Your task to perform on an android device: delete location history Image 0: 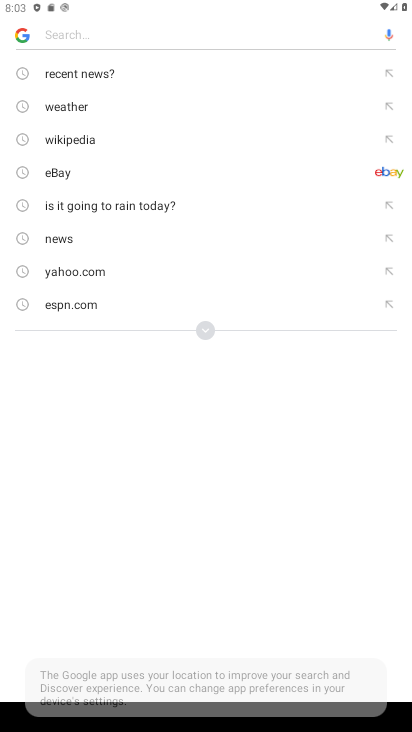
Step 0: press home button
Your task to perform on an android device: delete location history Image 1: 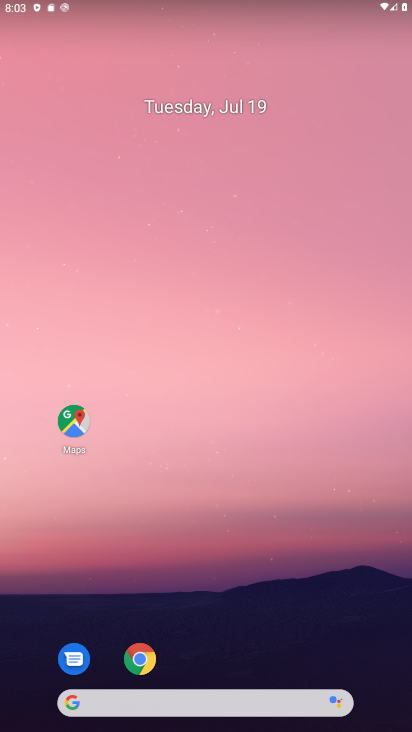
Step 1: click (72, 432)
Your task to perform on an android device: delete location history Image 2: 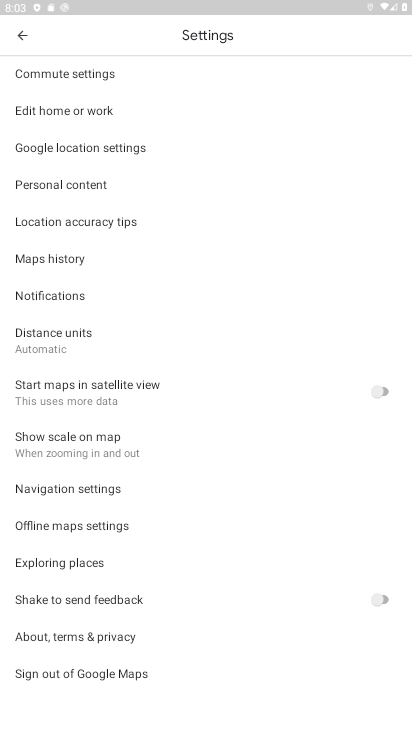
Step 2: click (19, 36)
Your task to perform on an android device: delete location history Image 3: 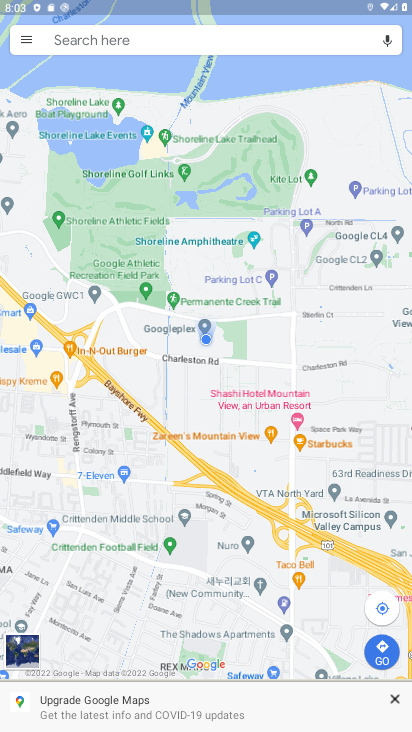
Step 3: click (19, 36)
Your task to perform on an android device: delete location history Image 4: 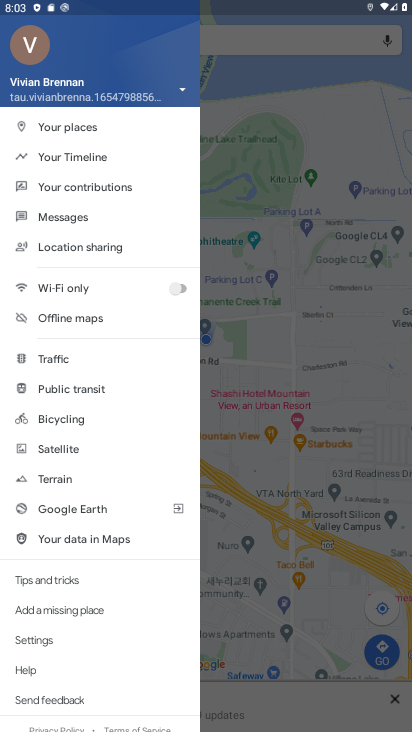
Step 4: click (109, 151)
Your task to perform on an android device: delete location history Image 5: 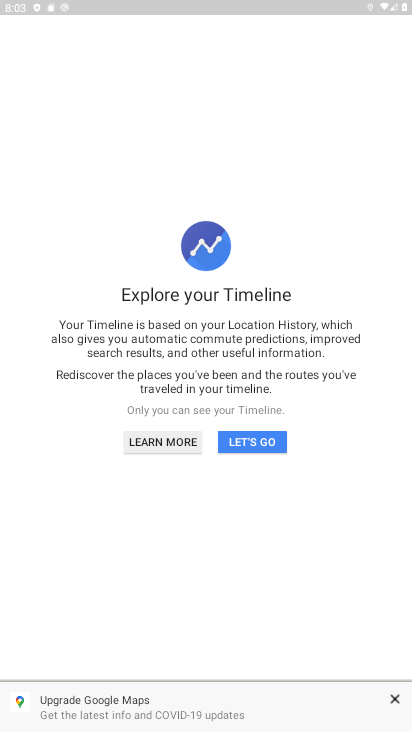
Step 5: click (275, 446)
Your task to perform on an android device: delete location history Image 6: 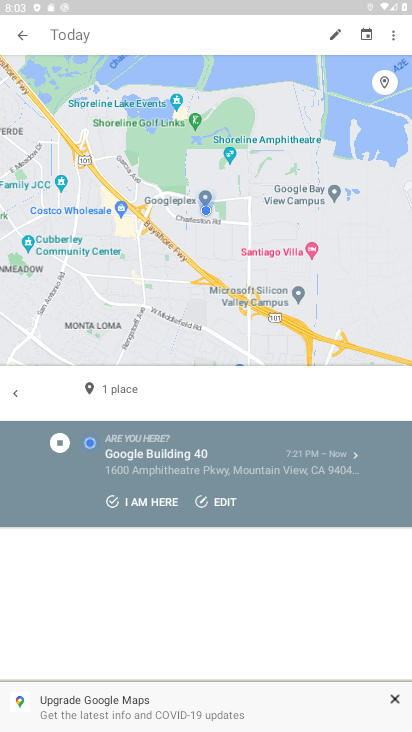
Step 6: click (398, 32)
Your task to perform on an android device: delete location history Image 7: 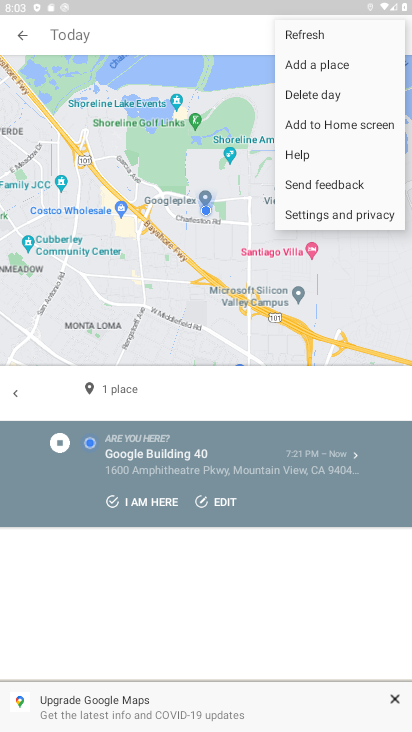
Step 7: click (355, 215)
Your task to perform on an android device: delete location history Image 8: 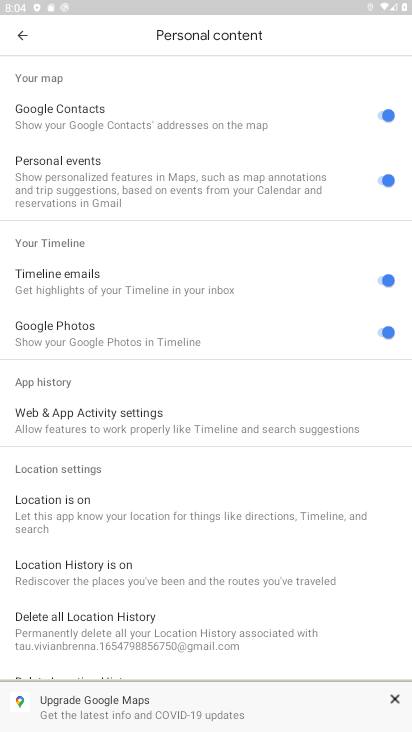
Step 8: click (225, 637)
Your task to perform on an android device: delete location history Image 9: 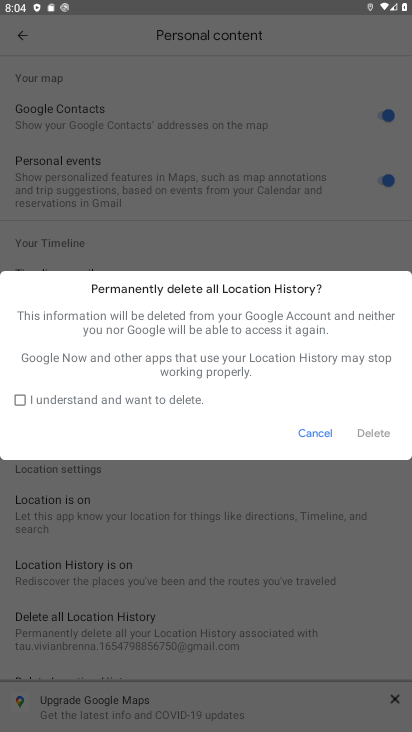
Step 9: click (22, 395)
Your task to perform on an android device: delete location history Image 10: 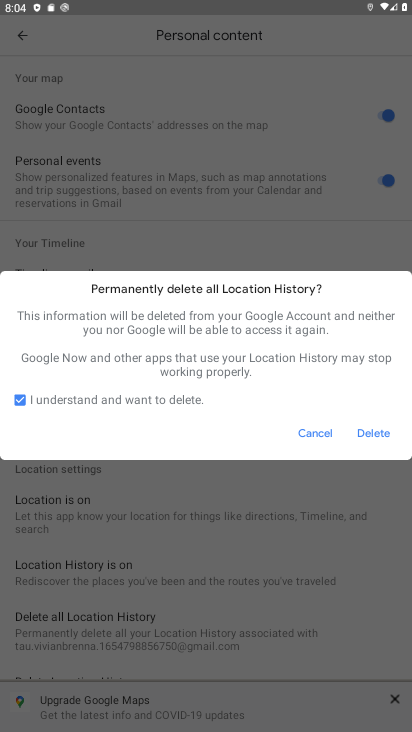
Step 10: click (378, 432)
Your task to perform on an android device: delete location history Image 11: 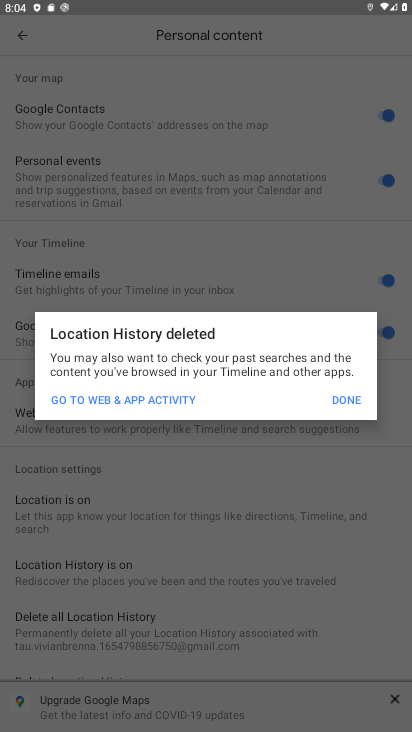
Step 11: click (357, 410)
Your task to perform on an android device: delete location history Image 12: 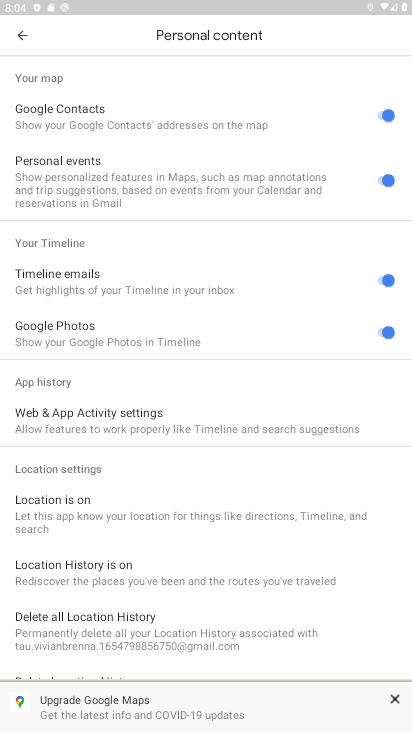
Step 12: task complete